Your task to perform on an android device: set the timer Image 0: 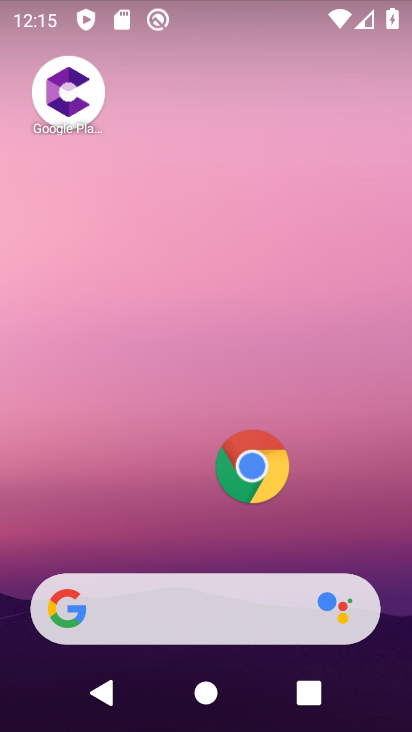
Step 0: click (192, 26)
Your task to perform on an android device: set the timer Image 1: 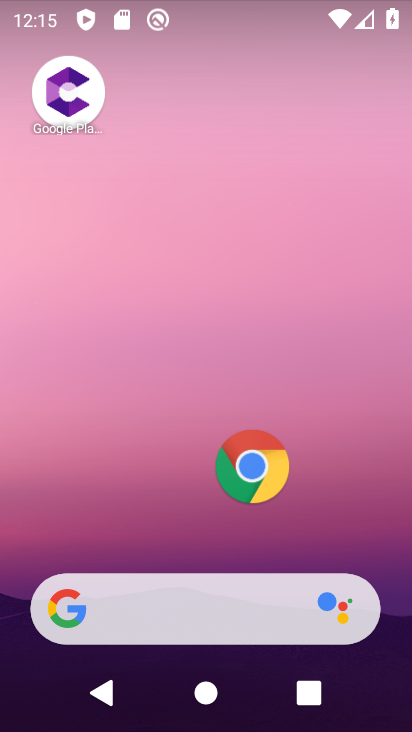
Step 1: drag from (202, 552) to (206, 214)
Your task to perform on an android device: set the timer Image 2: 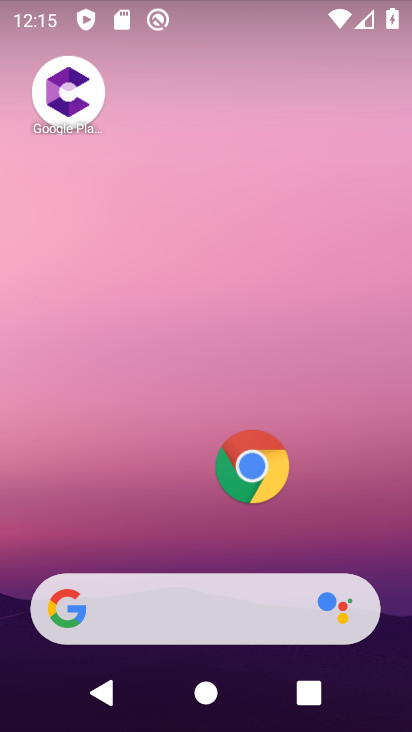
Step 2: drag from (206, 498) to (177, 95)
Your task to perform on an android device: set the timer Image 3: 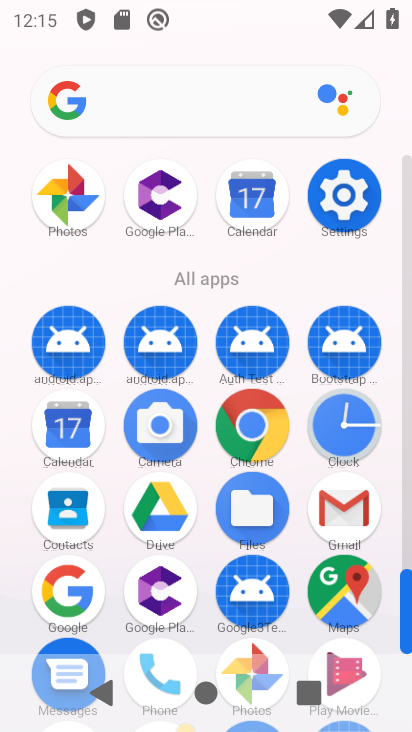
Step 3: drag from (182, 477) to (176, 36)
Your task to perform on an android device: set the timer Image 4: 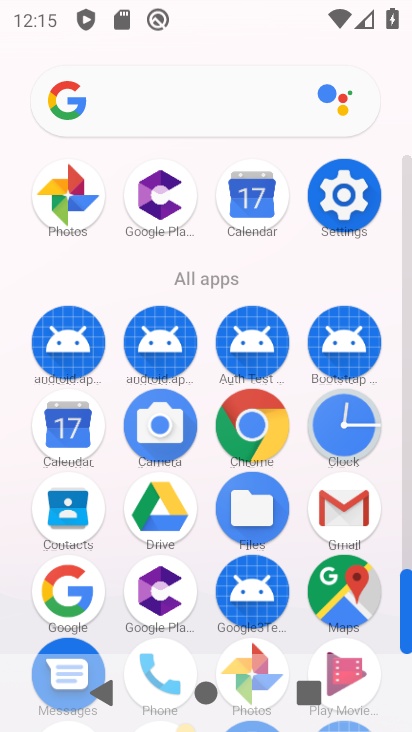
Step 4: drag from (198, 577) to (187, 225)
Your task to perform on an android device: set the timer Image 5: 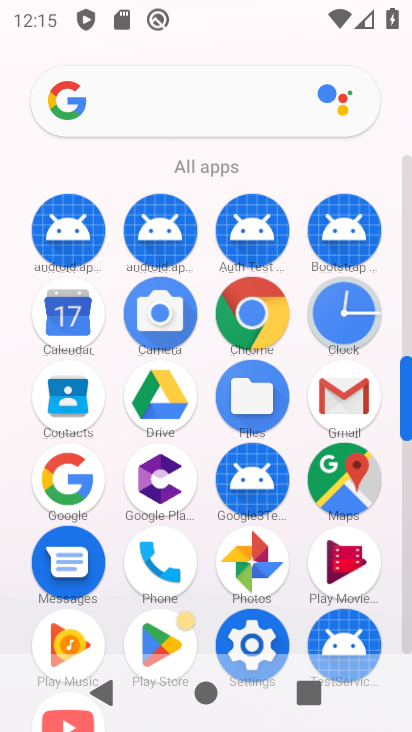
Step 5: click (344, 327)
Your task to perform on an android device: set the timer Image 6: 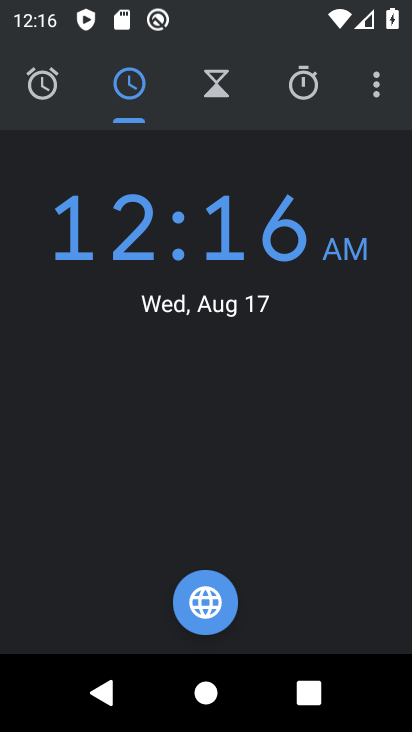
Step 6: click (213, 95)
Your task to perform on an android device: set the timer Image 7: 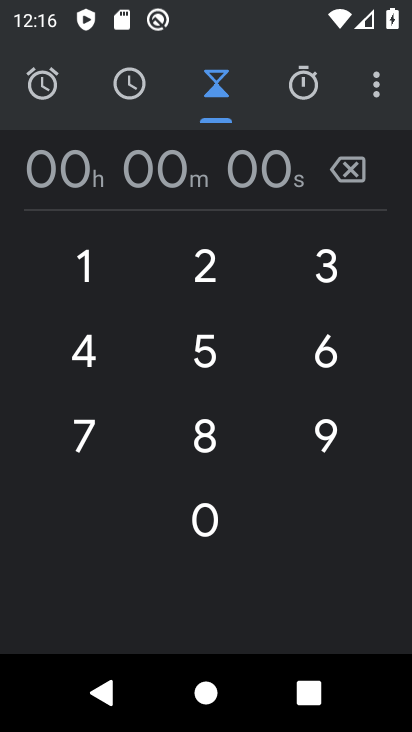
Step 7: click (215, 83)
Your task to perform on an android device: set the timer Image 8: 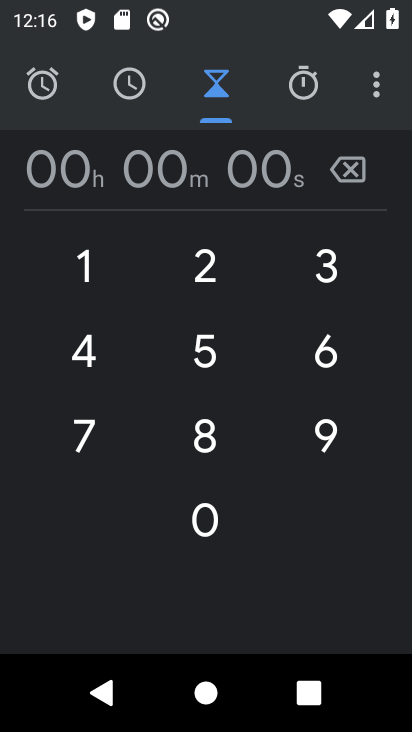
Step 8: click (215, 83)
Your task to perform on an android device: set the timer Image 9: 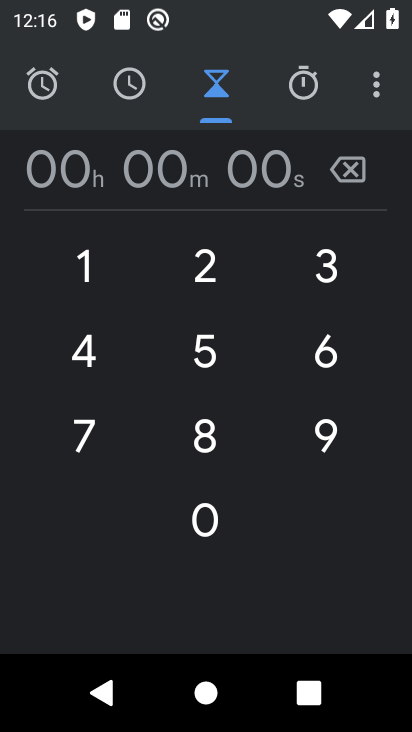
Step 9: click (99, 267)
Your task to perform on an android device: set the timer Image 10: 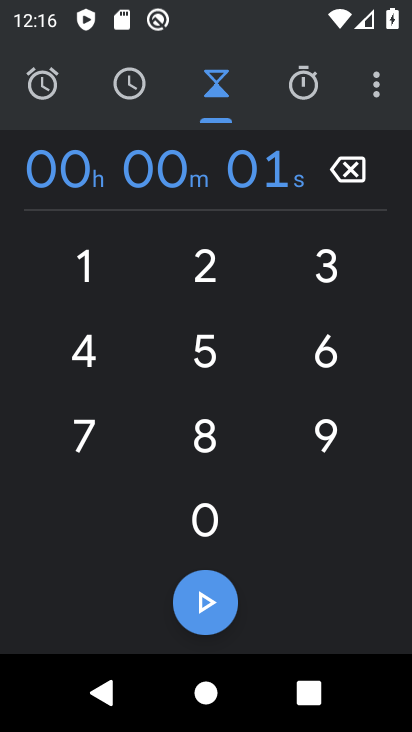
Step 10: click (195, 539)
Your task to perform on an android device: set the timer Image 11: 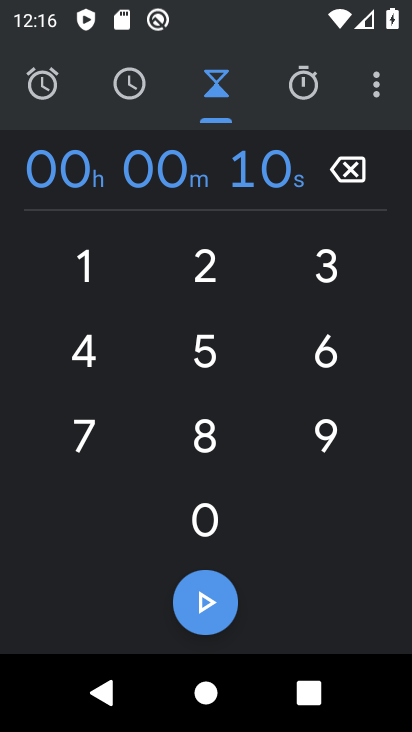
Step 11: click (195, 539)
Your task to perform on an android device: set the timer Image 12: 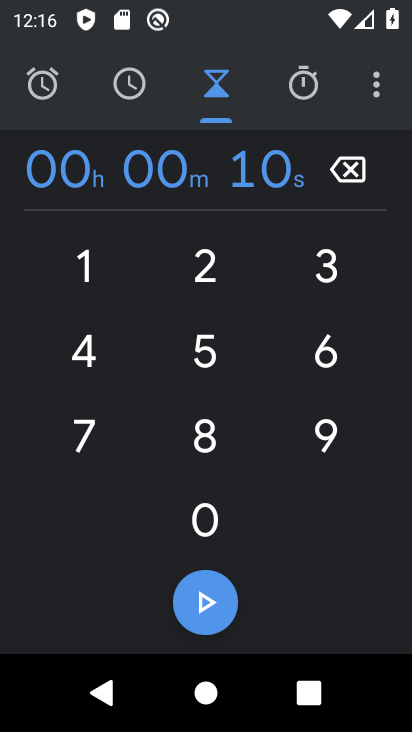
Step 12: click (195, 539)
Your task to perform on an android device: set the timer Image 13: 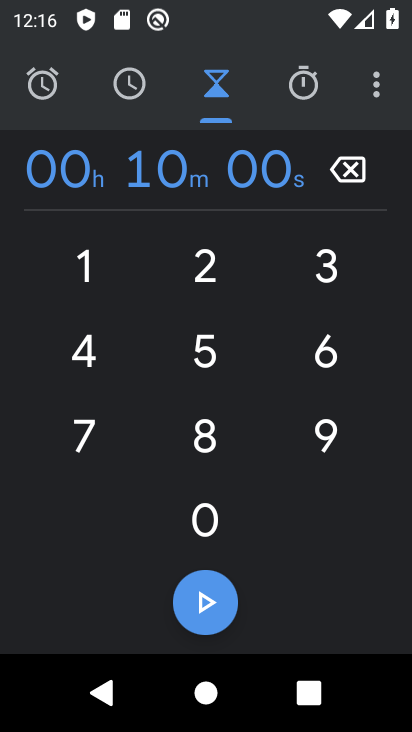
Step 13: click (203, 598)
Your task to perform on an android device: set the timer Image 14: 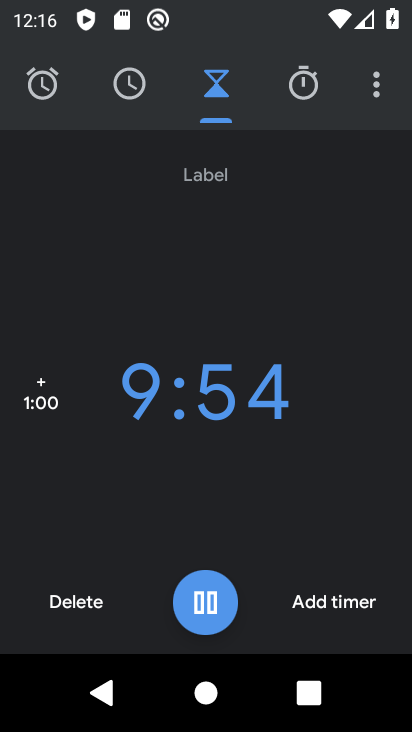
Step 14: click (327, 597)
Your task to perform on an android device: set the timer Image 15: 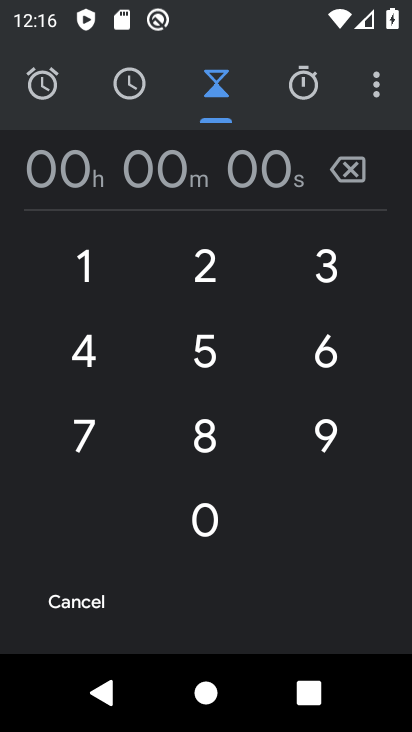
Step 15: task complete